Your task to perform on an android device: star an email in the gmail app Image 0: 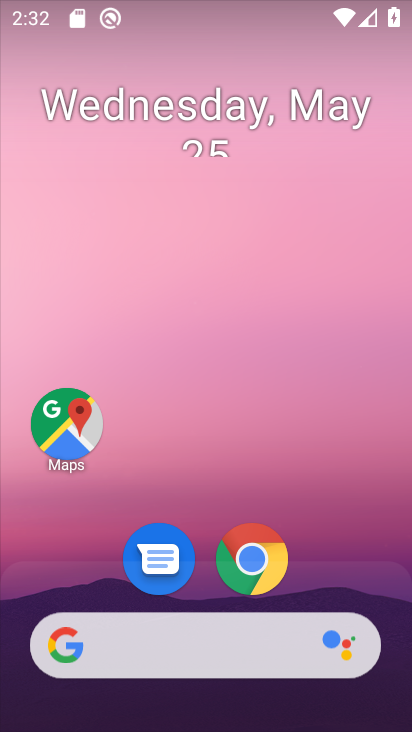
Step 0: press home button
Your task to perform on an android device: star an email in the gmail app Image 1: 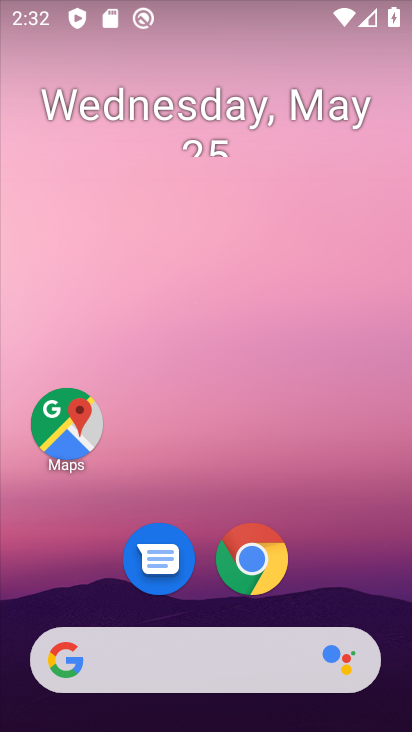
Step 1: drag from (204, 594) to (229, 40)
Your task to perform on an android device: star an email in the gmail app Image 2: 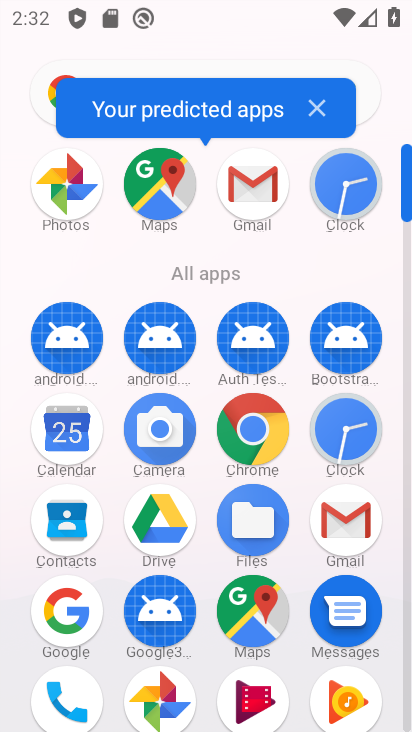
Step 2: click (252, 185)
Your task to perform on an android device: star an email in the gmail app Image 3: 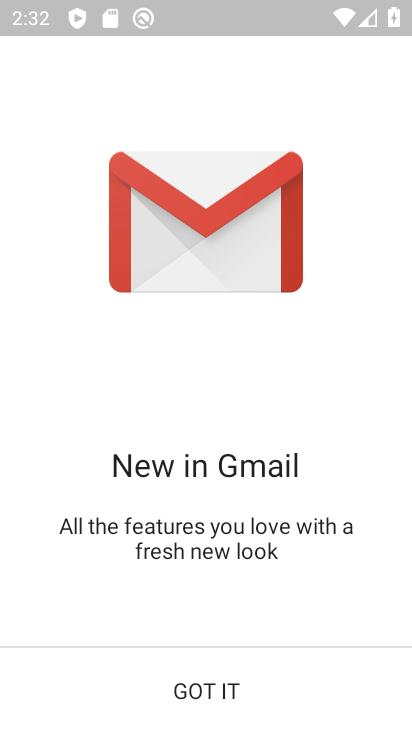
Step 3: click (215, 694)
Your task to perform on an android device: star an email in the gmail app Image 4: 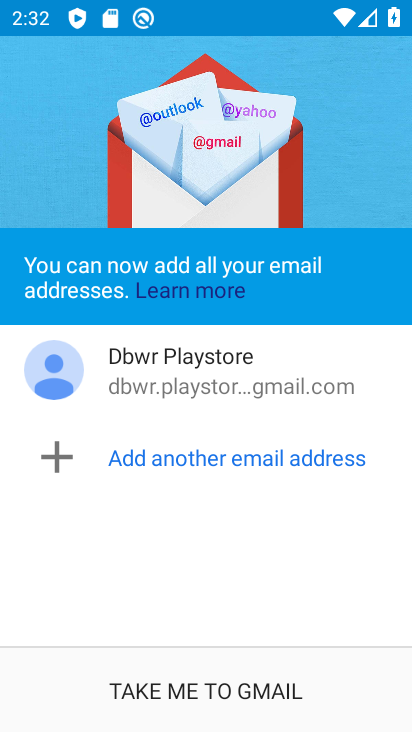
Step 4: click (234, 707)
Your task to perform on an android device: star an email in the gmail app Image 5: 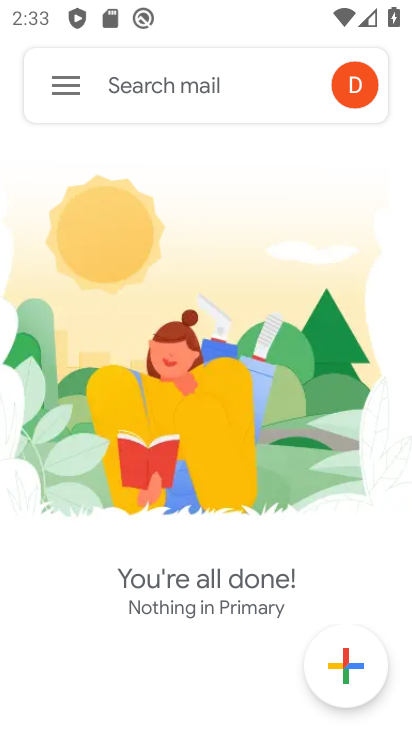
Step 5: task complete